Your task to perform on an android device: Open Android settings Image 0: 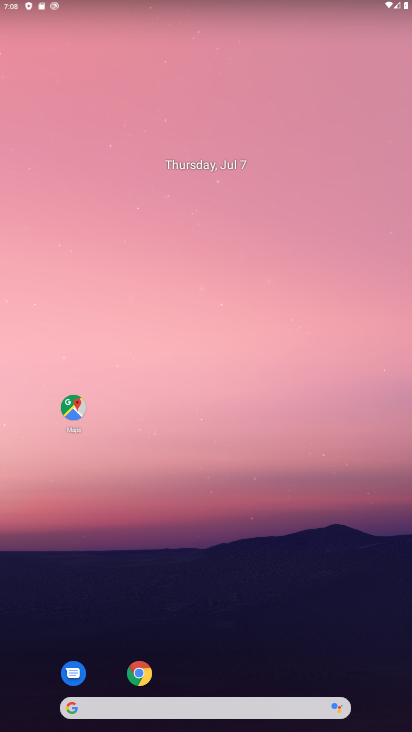
Step 0: drag from (255, 656) to (136, 169)
Your task to perform on an android device: Open Android settings Image 1: 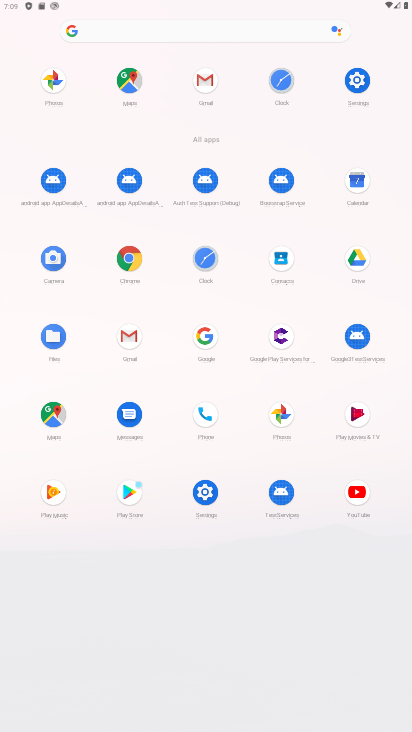
Step 1: click (358, 81)
Your task to perform on an android device: Open Android settings Image 2: 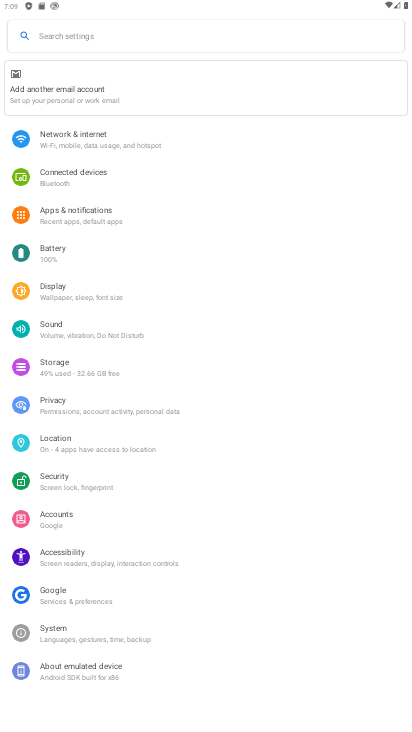
Step 2: task complete